Your task to perform on an android device: turn on wifi Image 0: 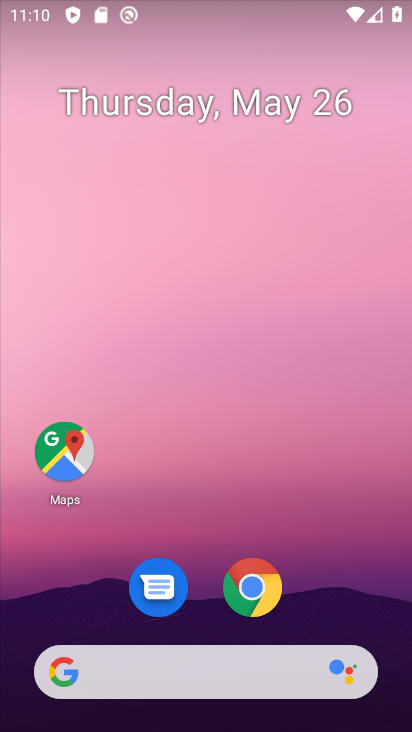
Step 0: drag from (267, 688) to (289, 143)
Your task to perform on an android device: turn on wifi Image 1: 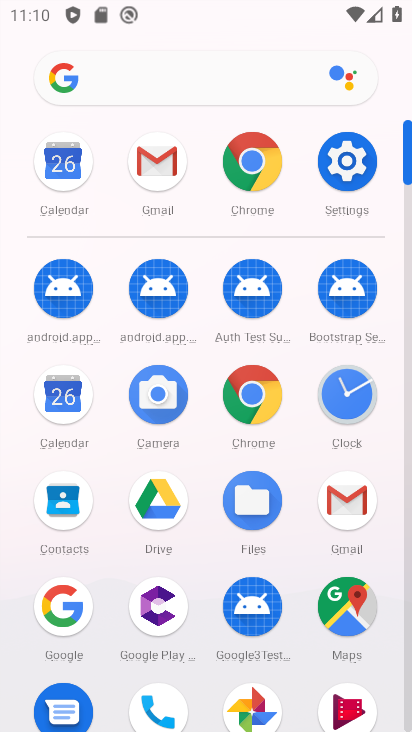
Step 1: click (344, 152)
Your task to perform on an android device: turn on wifi Image 2: 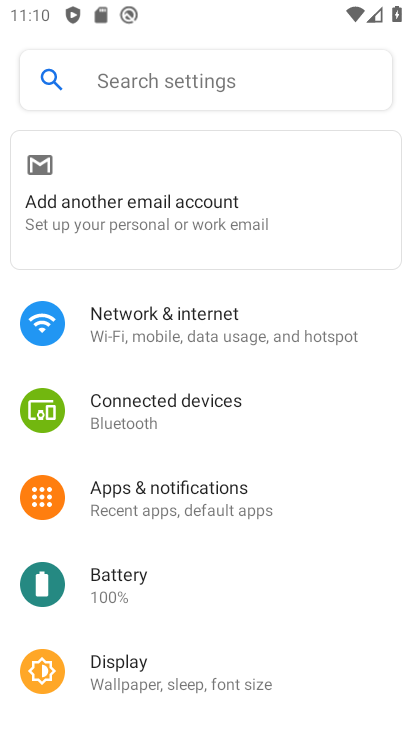
Step 2: click (158, 330)
Your task to perform on an android device: turn on wifi Image 3: 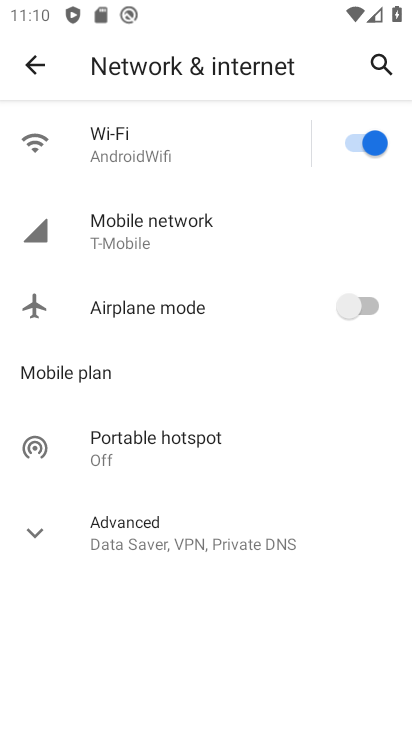
Step 3: click (212, 141)
Your task to perform on an android device: turn on wifi Image 4: 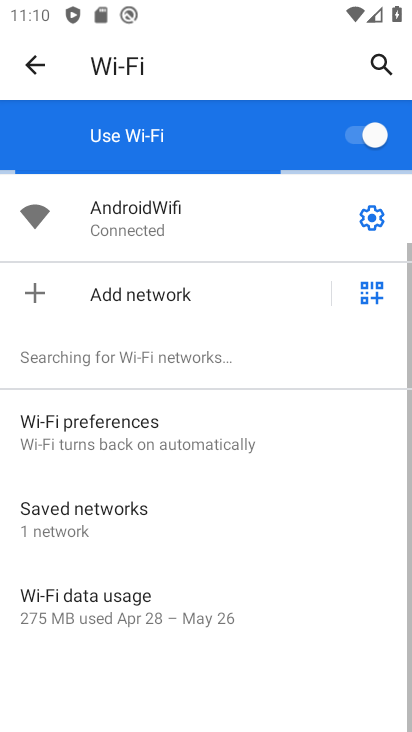
Step 4: click (386, 115)
Your task to perform on an android device: turn on wifi Image 5: 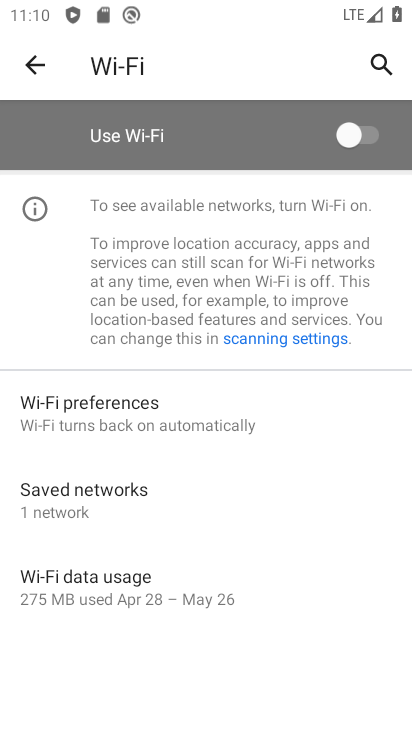
Step 5: click (364, 130)
Your task to perform on an android device: turn on wifi Image 6: 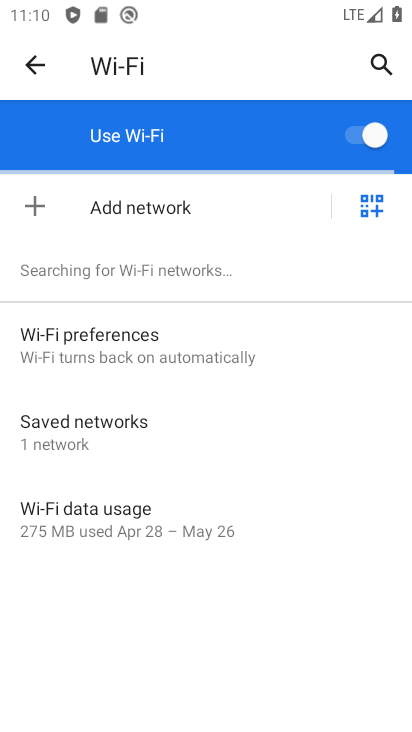
Step 6: task complete